Your task to perform on an android device: turn on showing notifications on the lock screen Image 0: 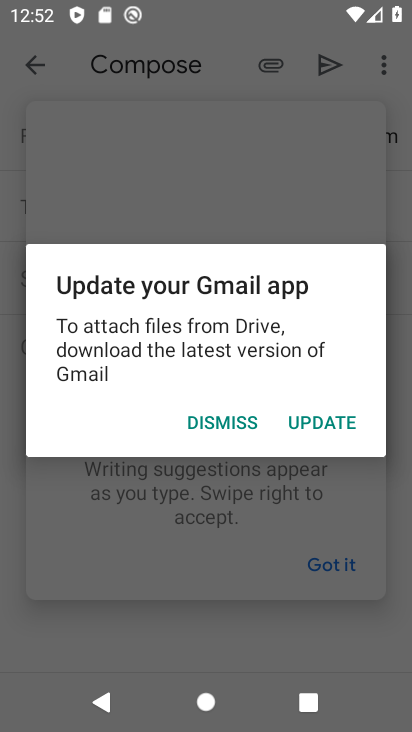
Step 0: press home button
Your task to perform on an android device: turn on showing notifications on the lock screen Image 1: 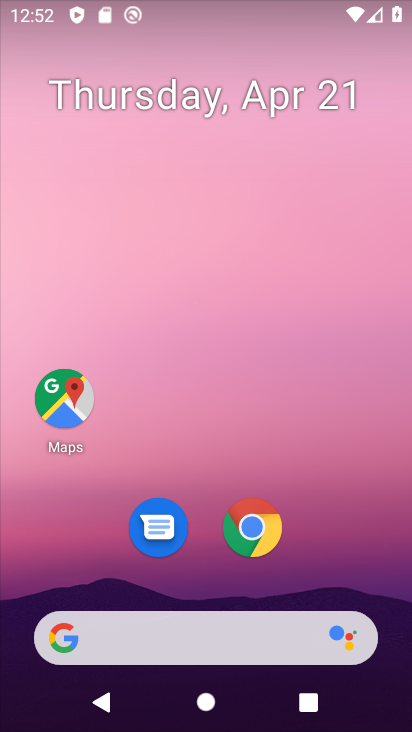
Step 1: drag from (349, 559) to (367, 112)
Your task to perform on an android device: turn on showing notifications on the lock screen Image 2: 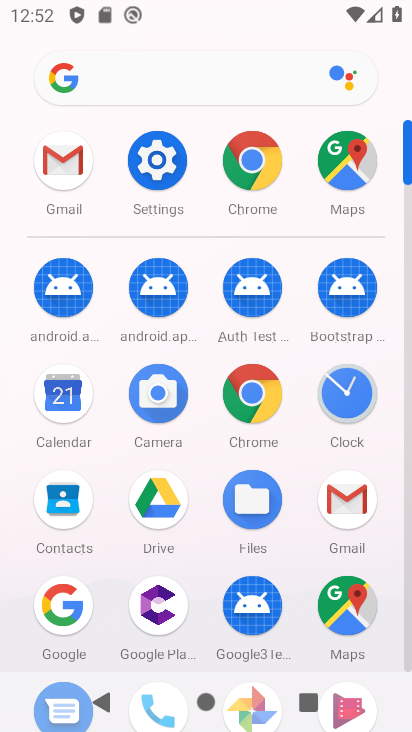
Step 2: click (170, 172)
Your task to perform on an android device: turn on showing notifications on the lock screen Image 3: 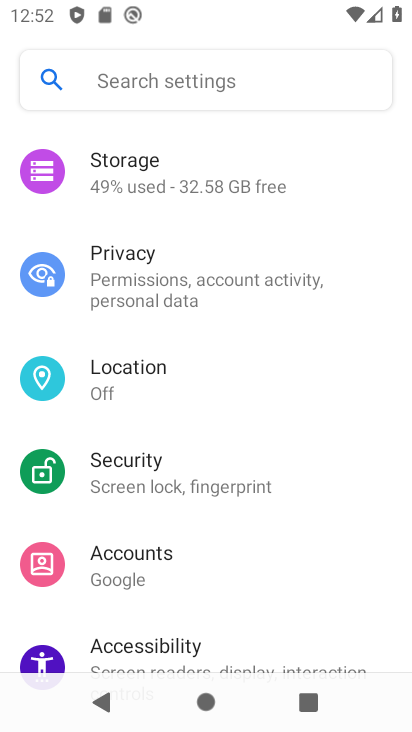
Step 3: drag from (336, 338) to (343, 461)
Your task to perform on an android device: turn on showing notifications on the lock screen Image 4: 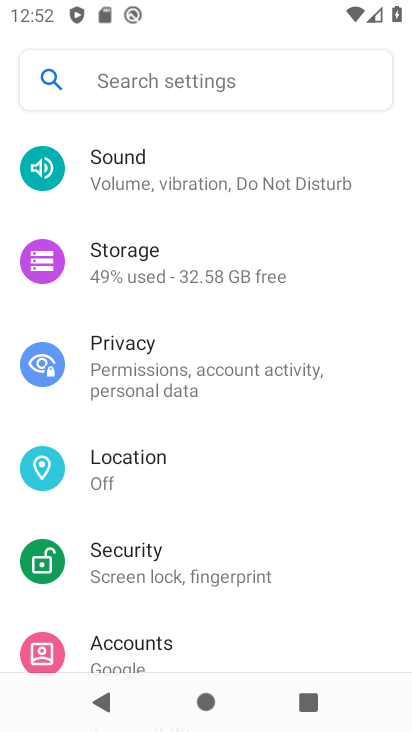
Step 4: drag from (357, 308) to (359, 468)
Your task to perform on an android device: turn on showing notifications on the lock screen Image 5: 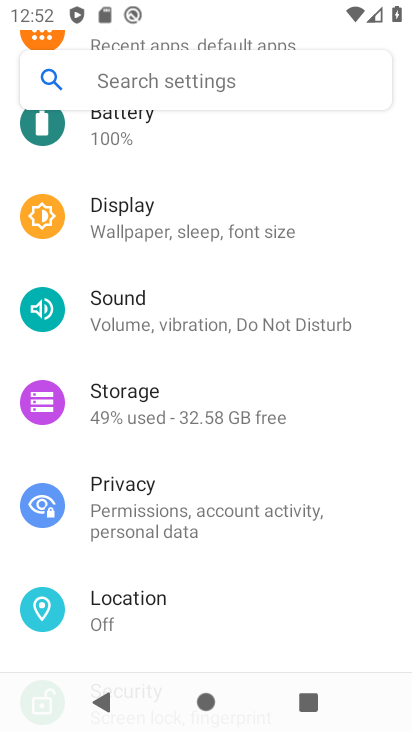
Step 5: drag from (380, 299) to (367, 464)
Your task to perform on an android device: turn on showing notifications on the lock screen Image 6: 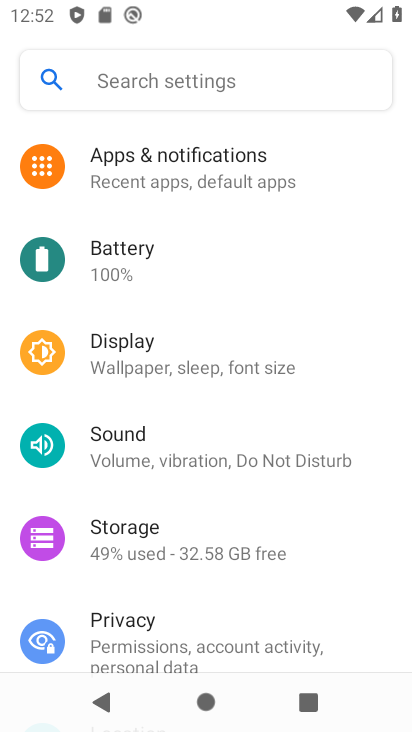
Step 6: drag from (366, 274) to (358, 423)
Your task to perform on an android device: turn on showing notifications on the lock screen Image 7: 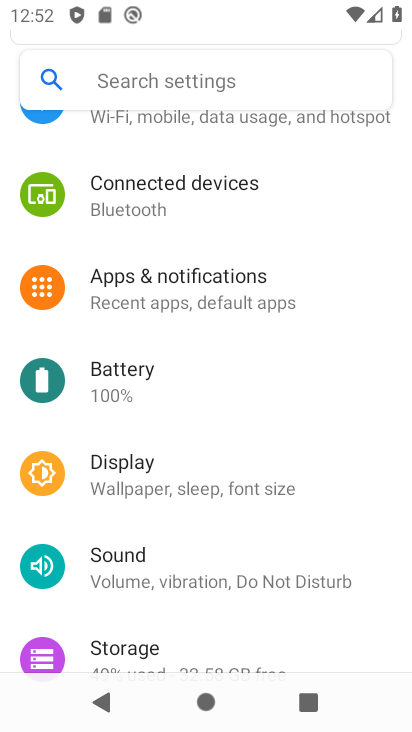
Step 7: drag from (363, 282) to (366, 414)
Your task to perform on an android device: turn on showing notifications on the lock screen Image 8: 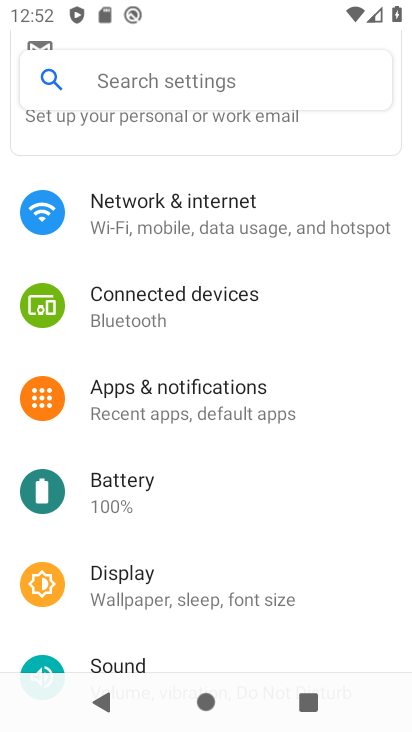
Step 8: click (257, 412)
Your task to perform on an android device: turn on showing notifications on the lock screen Image 9: 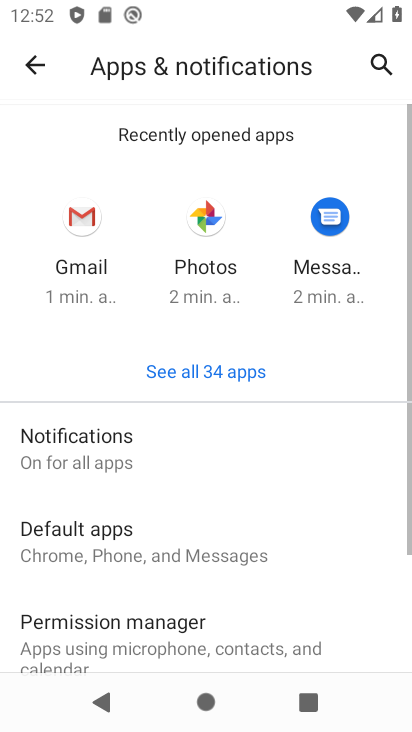
Step 9: click (104, 460)
Your task to perform on an android device: turn on showing notifications on the lock screen Image 10: 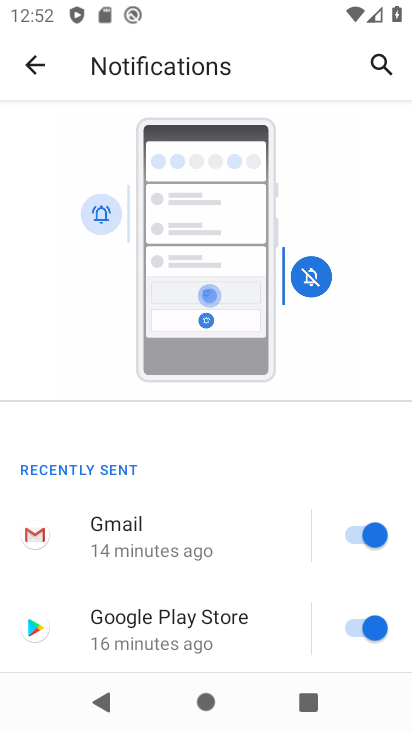
Step 10: drag from (280, 545) to (287, 364)
Your task to perform on an android device: turn on showing notifications on the lock screen Image 11: 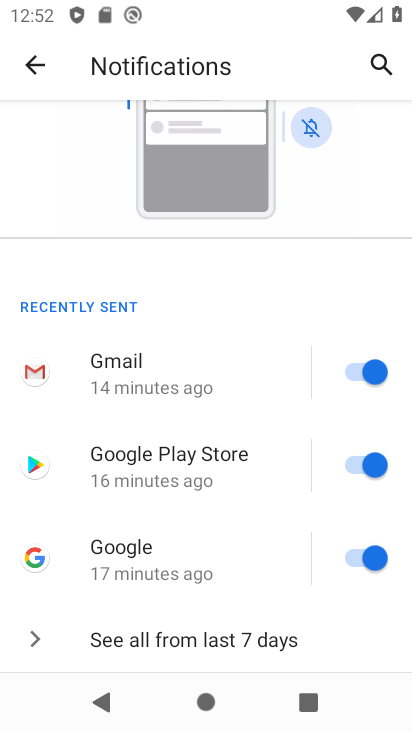
Step 11: drag from (263, 541) to (284, 326)
Your task to perform on an android device: turn on showing notifications on the lock screen Image 12: 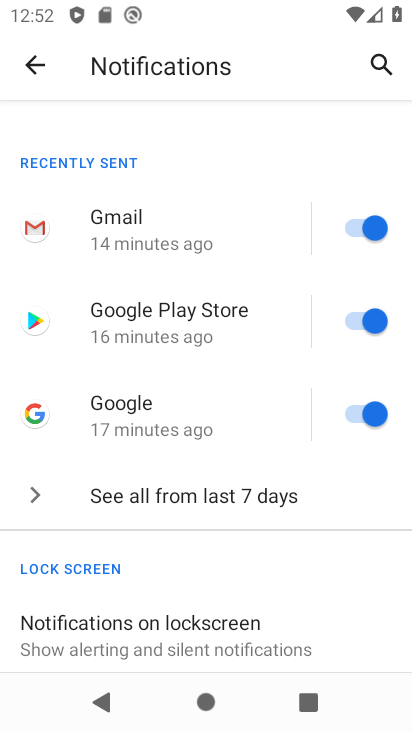
Step 12: drag from (266, 545) to (271, 363)
Your task to perform on an android device: turn on showing notifications on the lock screen Image 13: 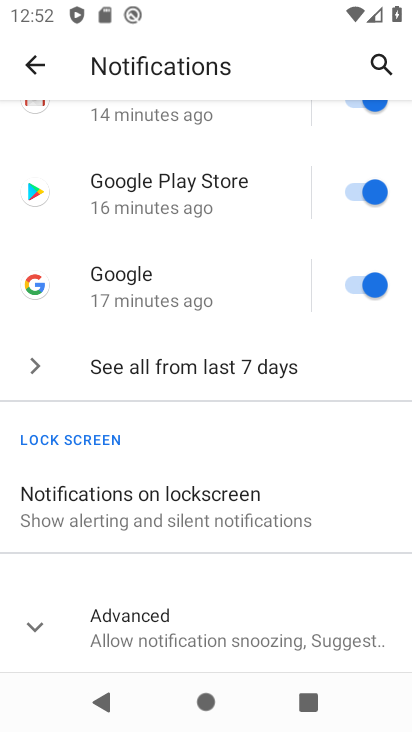
Step 13: click (178, 509)
Your task to perform on an android device: turn on showing notifications on the lock screen Image 14: 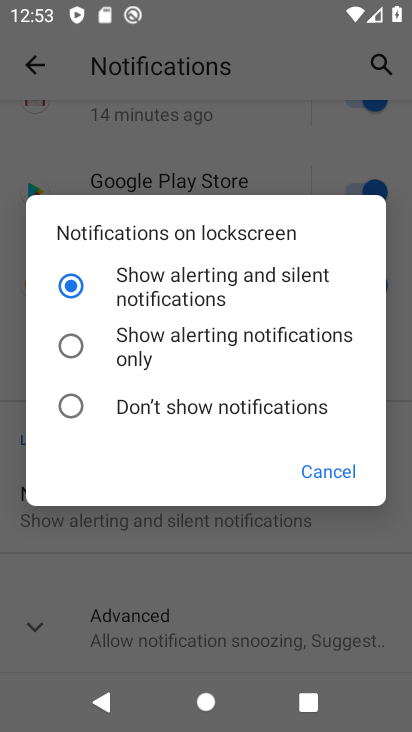
Step 14: task complete